Your task to perform on an android device: Go to Yahoo.com Image 0: 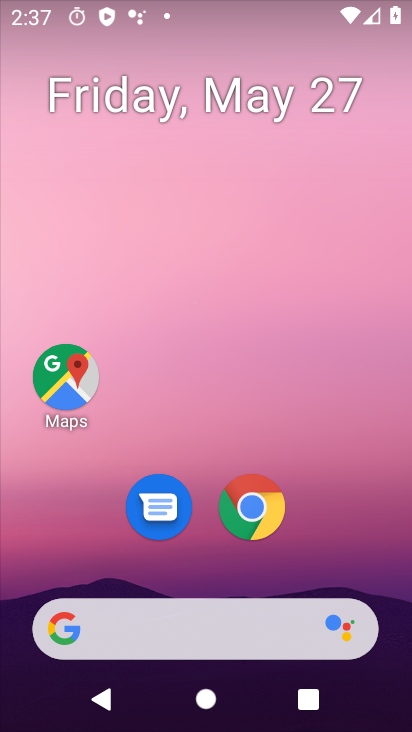
Step 0: click (245, 513)
Your task to perform on an android device: Go to Yahoo.com Image 1: 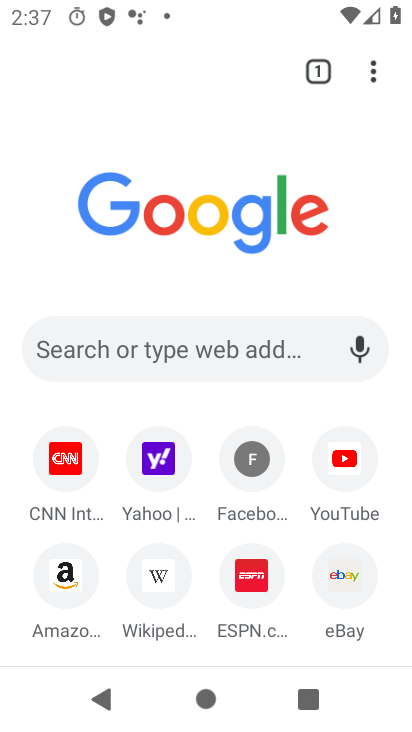
Step 1: click (162, 465)
Your task to perform on an android device: Go to Yahoo.com Image 2: 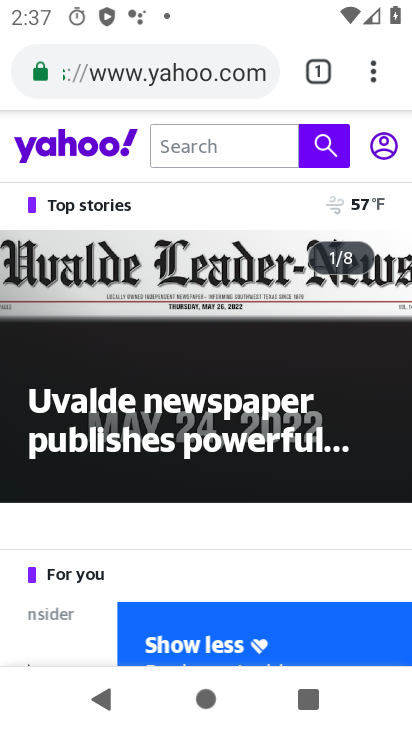
Step 2: task complete